Your task to perform on an android device: toggle show notifications on the lock screen Image 0: 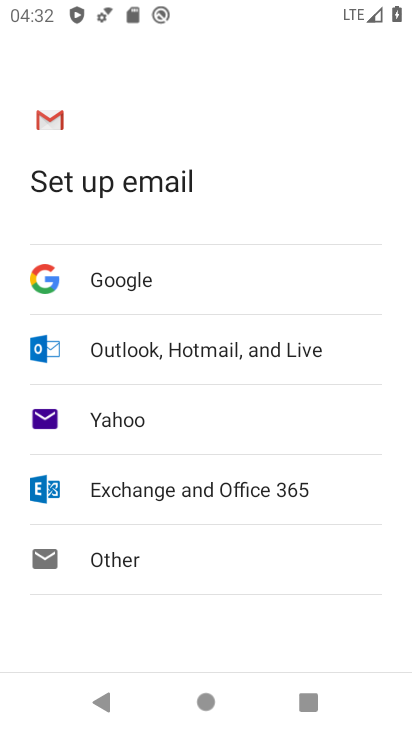
Step 0: press home button
Your task to perform on an android device: toggle show notifications on the lock screen Image 1: 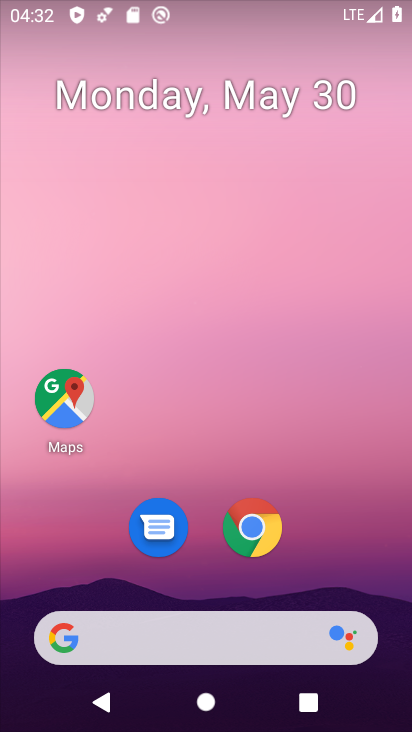
Step 1: drag from (234, 716) to (224, 34)
Your task to perform on an android device: toggle show notifications on the lock screen Image 2: 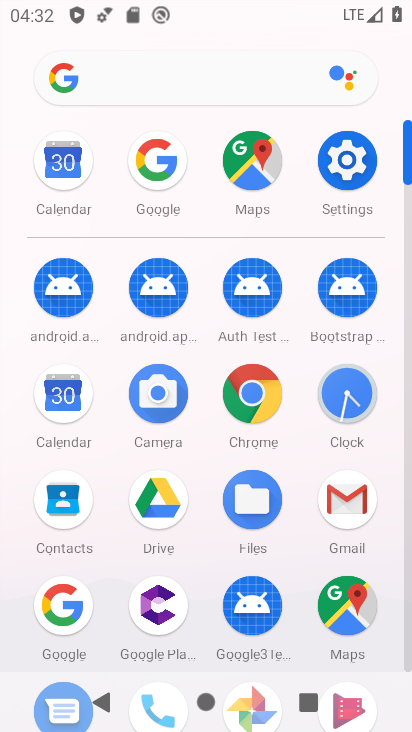
Step 2: click (354, 160)
Your task to perform on an android device: toggle show notifications on the lock screen Image 3: 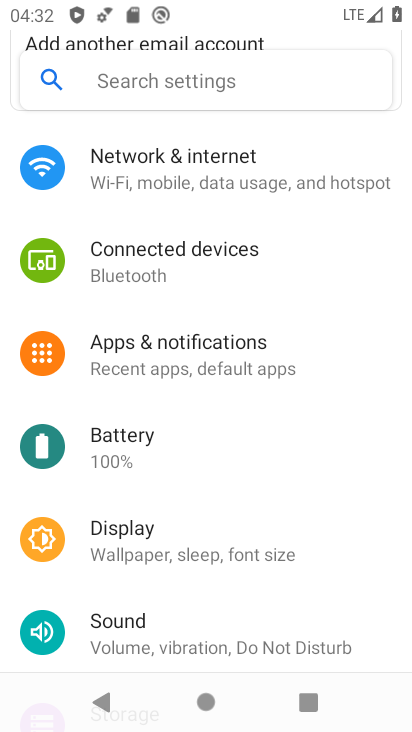
Step 3: click (163, 350)
Your task to perform on an android device: toggle show notifications on the lock screen Image 4: 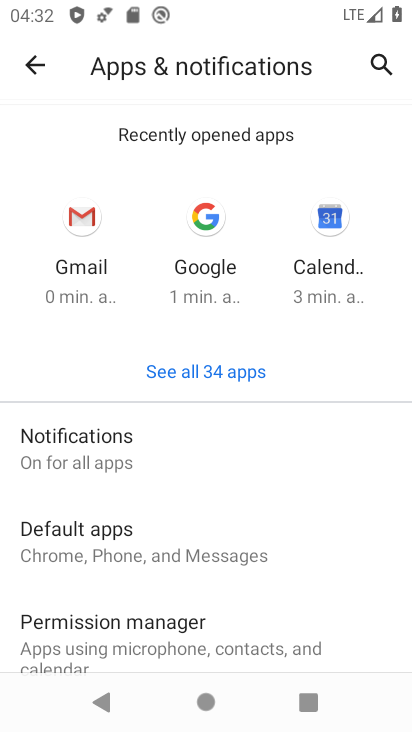
Step 4: click (93, 442)
Your task to perform on an android device: toggle show notifications on the lock screen Image 5: 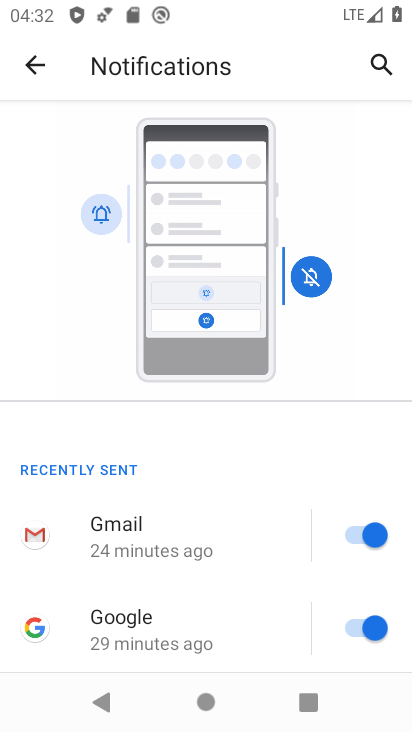
Step 5: task complete